Your task to perform on an android device: turn off javascript in the chrome app Image 0: 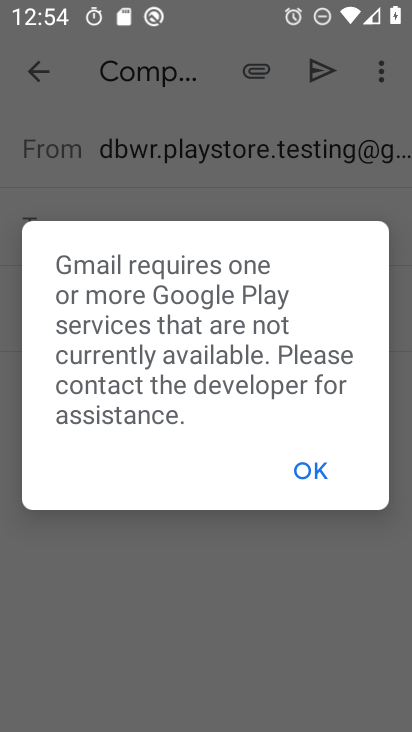
Step 0: click (318, 471)
Your task to perform on an android device: turn off javascript in the chrome app Image 1: 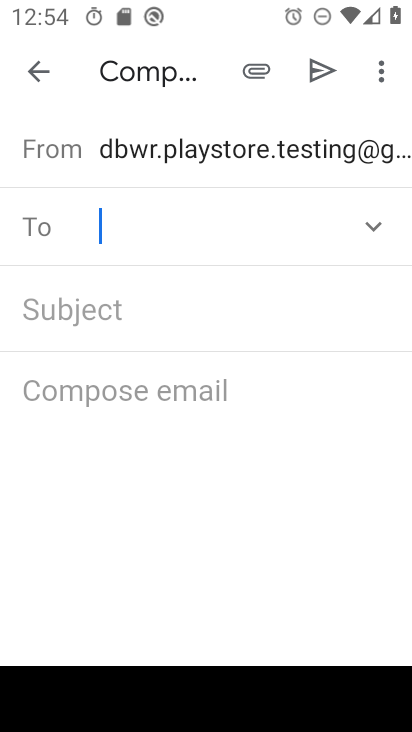
Step 1: click (42, 68)
Your task to perform on an android device: turn off javascript in the chrome app Image 2: 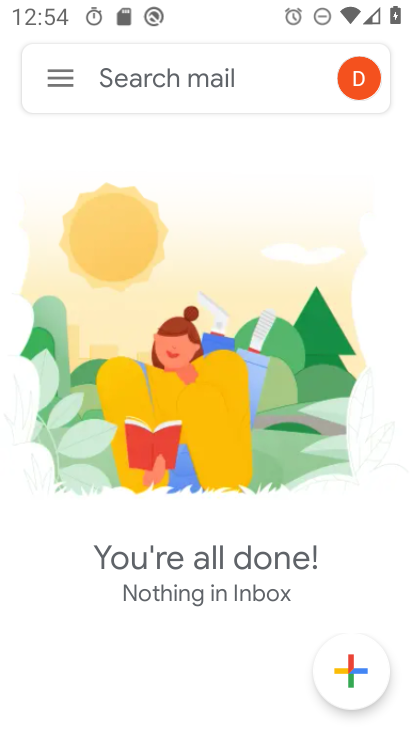
Step 2: press home button
Your task to perform on an android device: turn off javascript in the chrome app Image 3: 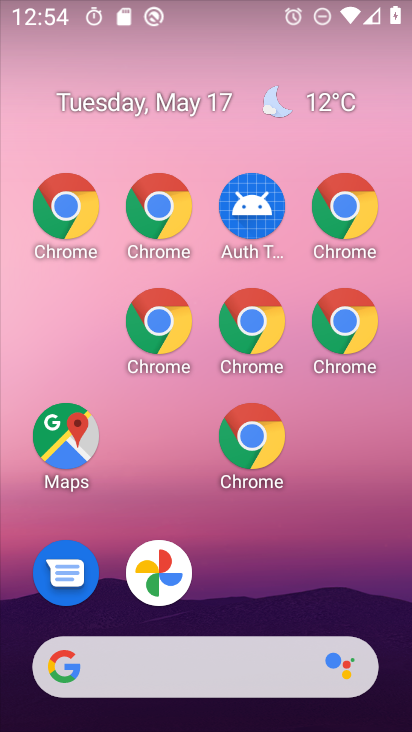
Step 3: drag from (186, 314) to (114, 87)
Your task to perform on an android device: turn off javascript in the chrome app Image 4: 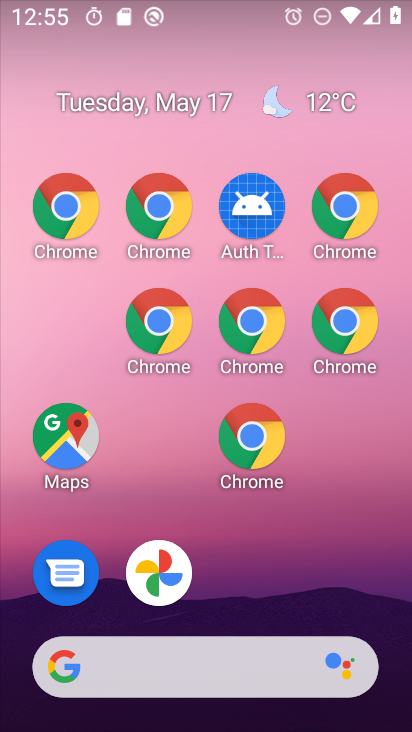
Step 4: drag from (272, 600) to (173, 62)
Your task to perform on an android device: turn off javascript in the chrome app Image 5: 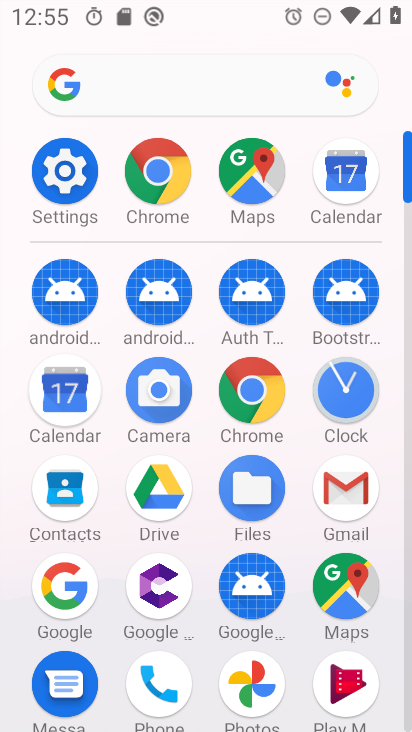
Step 5: click (161, 179)
Your task to perform on an android device: turn off javascript in the chrome app Image 6: 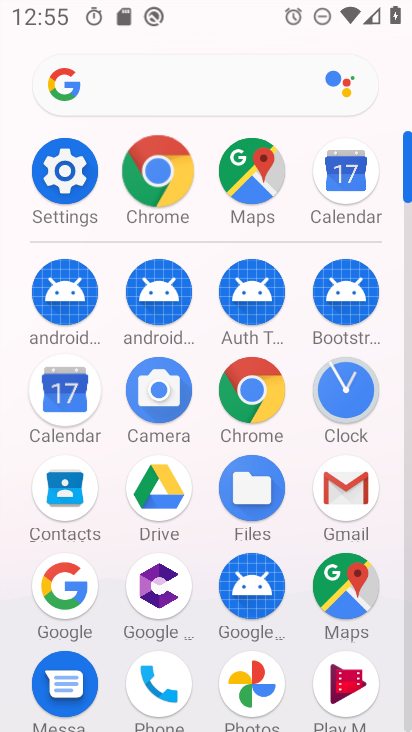
Step 6: click (161, 179)
Your task to perform on an android device: turn off javascript in the chrome app Image 7: 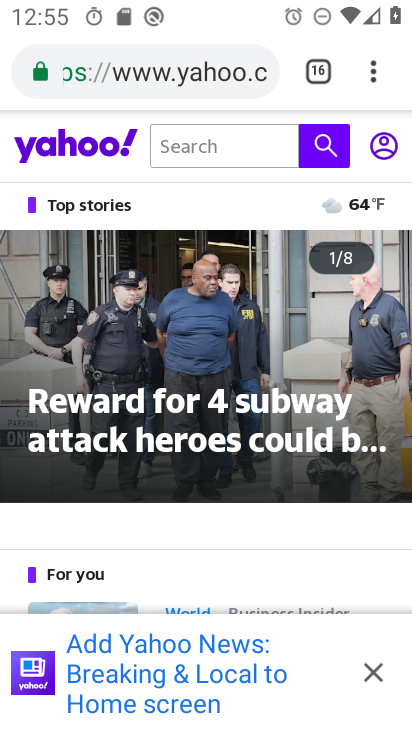
Step 7: drag from (372, 68) to (126, 571)
Your task to perform on an android device: turn off javascript in the chrome app Image 8: 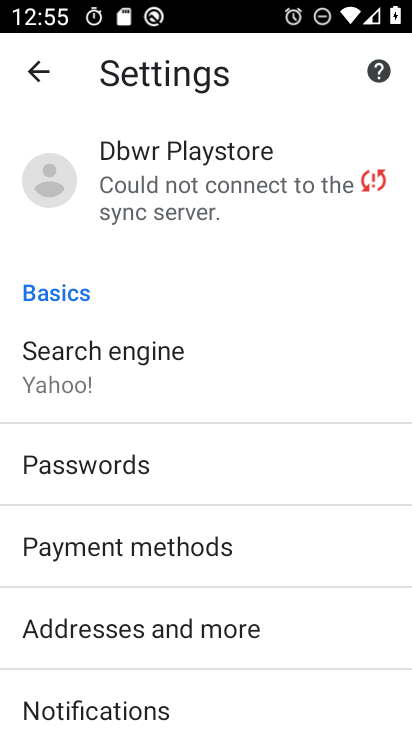
Step 8: drag from (97, 620) to (124, 166)
Your task to perform on an android device: turn off javascript in the chrome app Image 9: 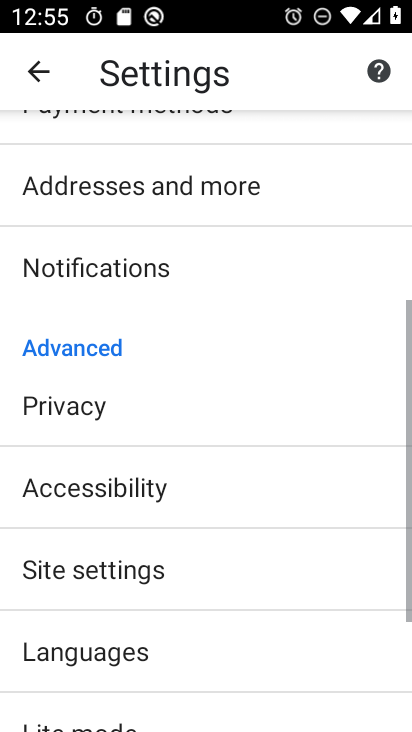
Step 9: drag from (210, 440) to (261, 117)
Your task to perform on an android device: turn off javascript in the chrome app Image 10: 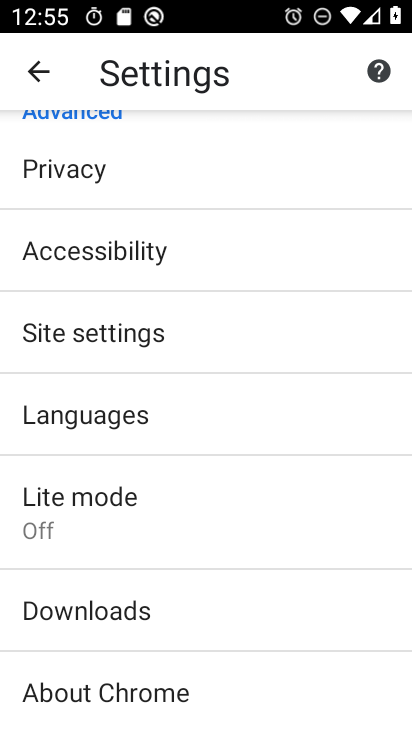
Step 10: click (85, 332)
Your task to perform on an android device: turn off javascript in the chrome app Image 11: 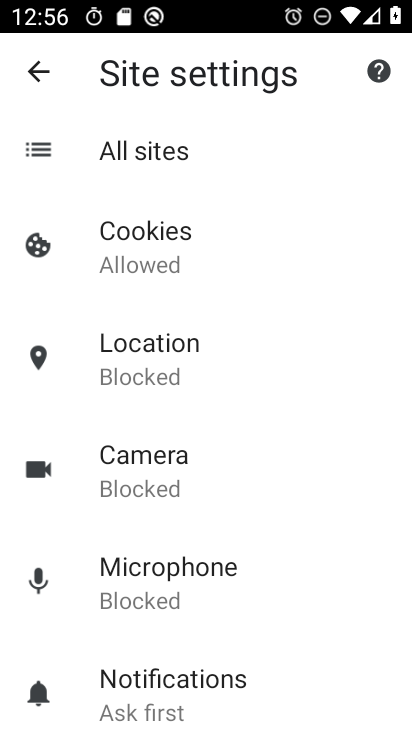
Step 11: drag from (190, 501) to (269, 184)
Your task to perform on an android device: turn off javascript in the chrome app Image 12: 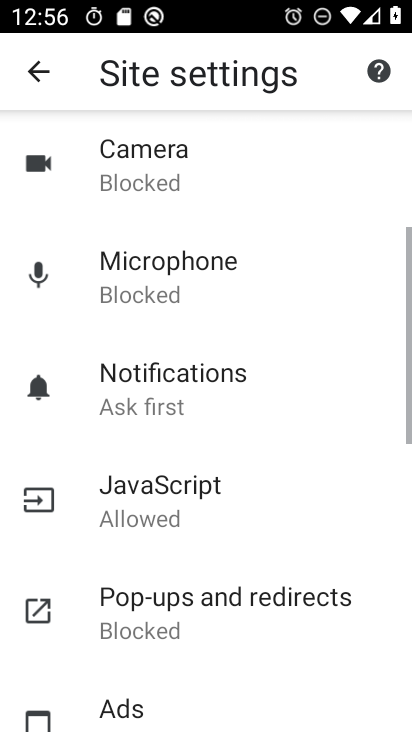
Step 12: click (147, 597)
Your task to perform on an android device: turn off javascript in the chrome app Image 13: 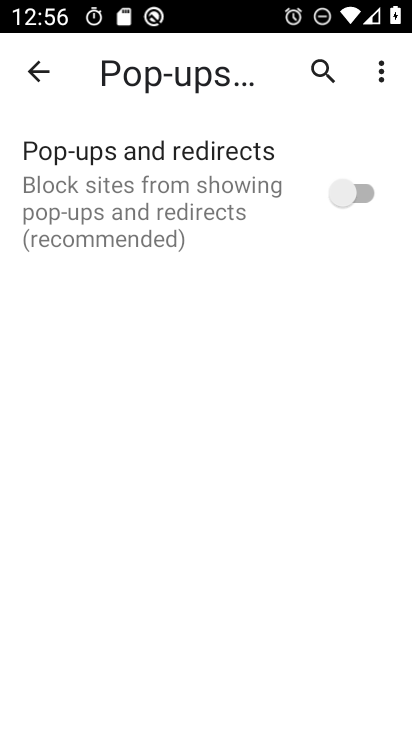
Step 13: click (340, 186)
Your task to perform on an android device: turn off javascript in the chrome app Image 14: 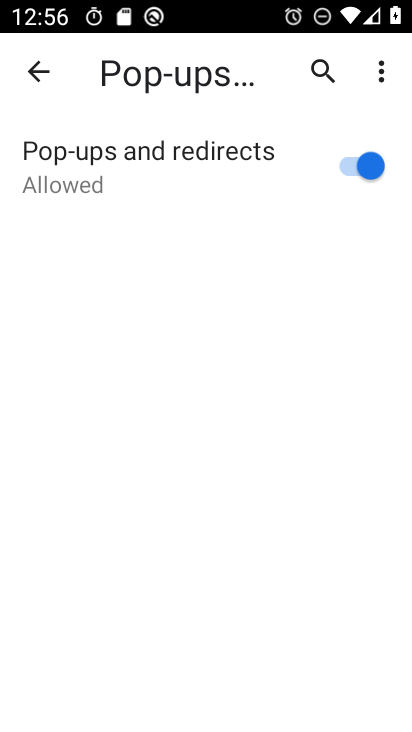
Step 14: click (371, 170)
Your task to perform on an android device: turn off javascript in the chrome app Image 15: 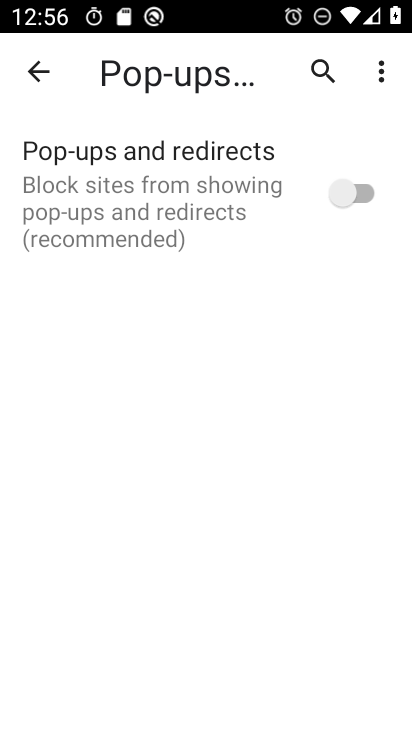
Step 15: task complete